Your task to perform on an android device: show emergency info Image 0: 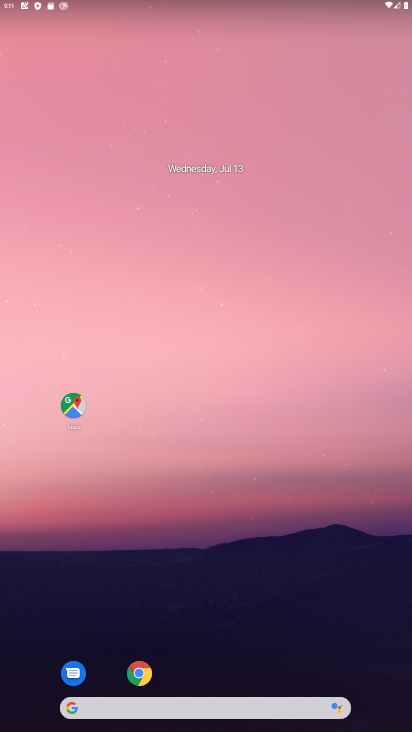
Step 0: drag from (194, 663) to (263, 3)
Your task to perform on an android device: show emergency info Image 1: 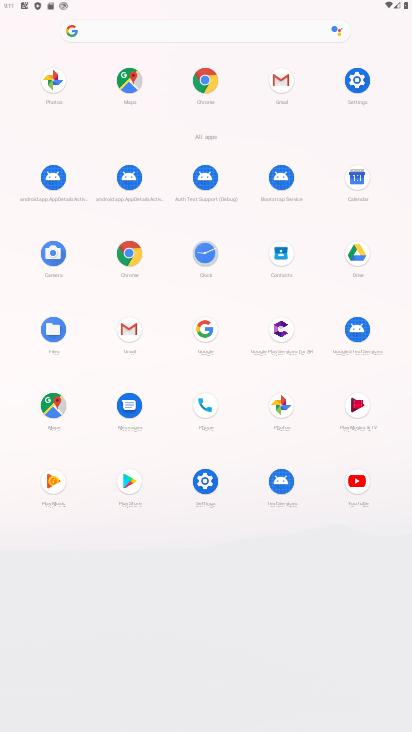
Step 1: click (362, 107)
Your task to perform on an android device: show emergency info Image 2: 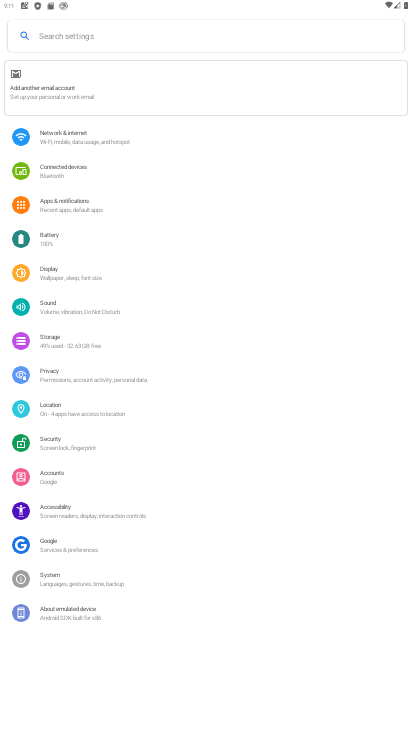
Step 2: click (53, 603)
Your task to perform on an android device: show emergency info Image 3: 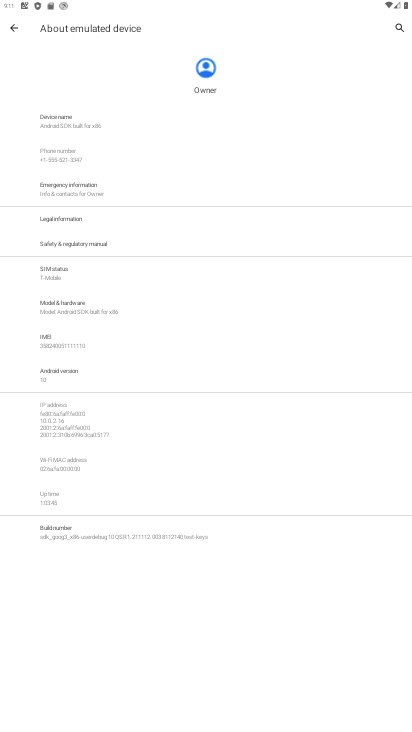
Step 3: click (100, 198)
Your task to perform on an android device: show emergency info Image 4: 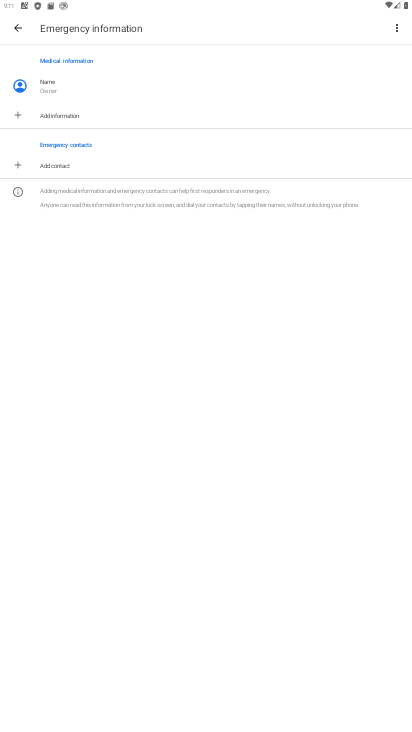
Step 4: task complete